Your task to perform on an android device: Open location settings Image 0: 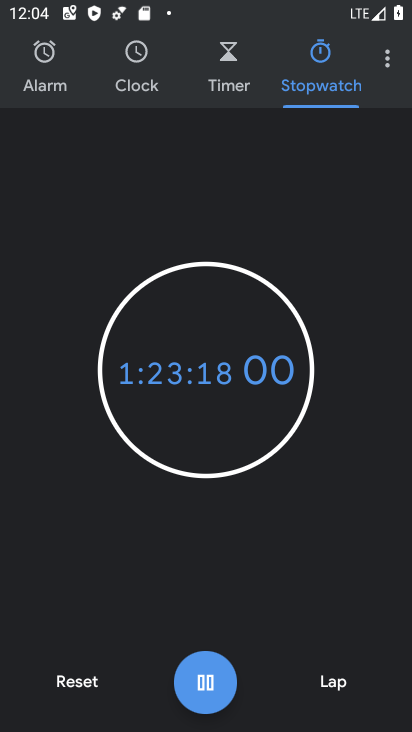
Step 0: press home button
Your task to perform on an android device: Open location settings Image 1: 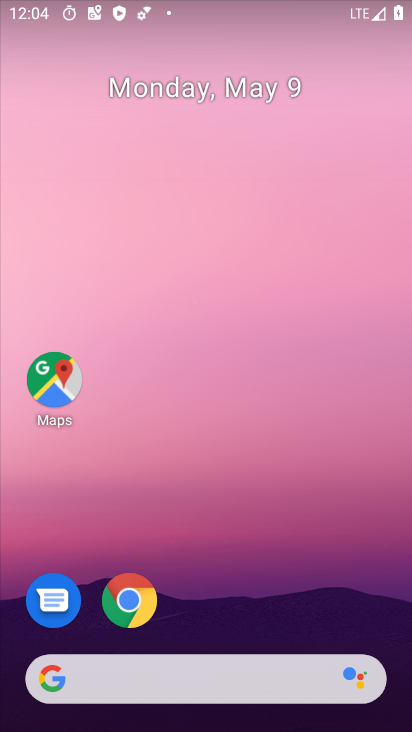
Step 1: drag from (240, 598) to (255, 256)
Your task to perform on an android device: Open location settings Image 2: 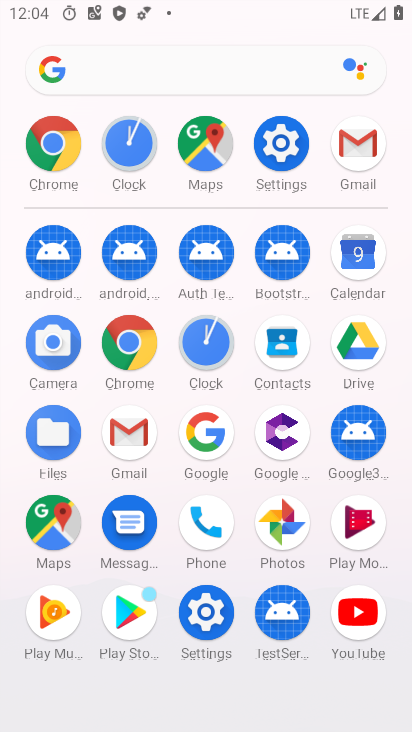
Step 2: click (283, 163)
Your task to perform on an android device: Open location settings Image 3: 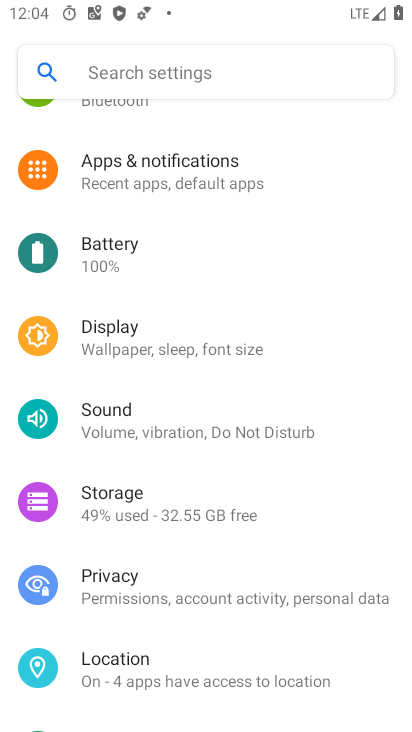
Step 3: click (152, 674)
Your task to perform on an android device: Open location settings Image 4: 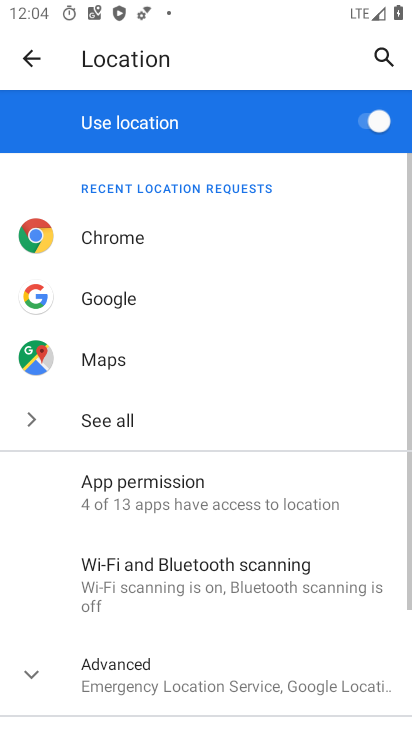
Step 4: task complete